Your task to perform on an android device: turn off priority inbox in the gmail app Image 0: 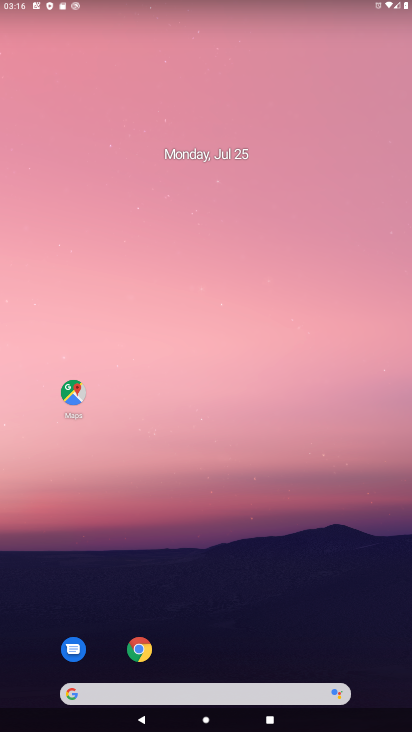
Step 0: drag from (376, 658) to (330, 194)
Your task to perform on an android device: turn off priority inbox in the gmail app Image 1: 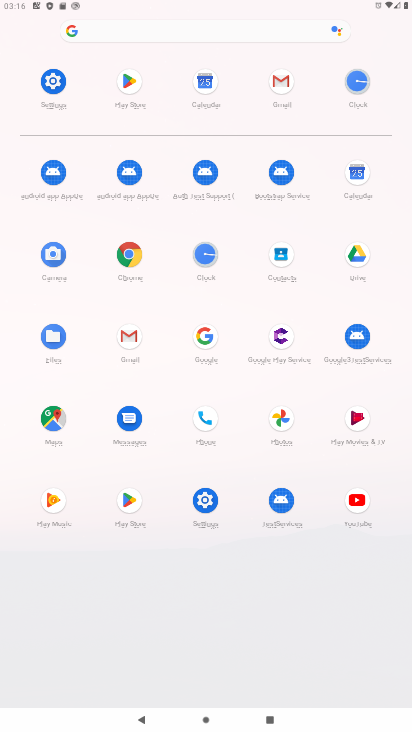
Step 1: click (128, 334)
Your task to perform on an android device: turn off priority inbox in the gmail app Image 2: 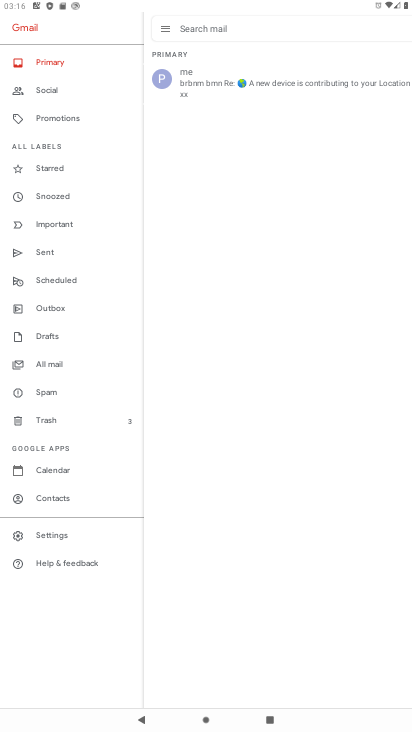
Step 2: click (46, 529)
Your task to perform on an android device: turn off priority inbox in the gmail app Image 3: 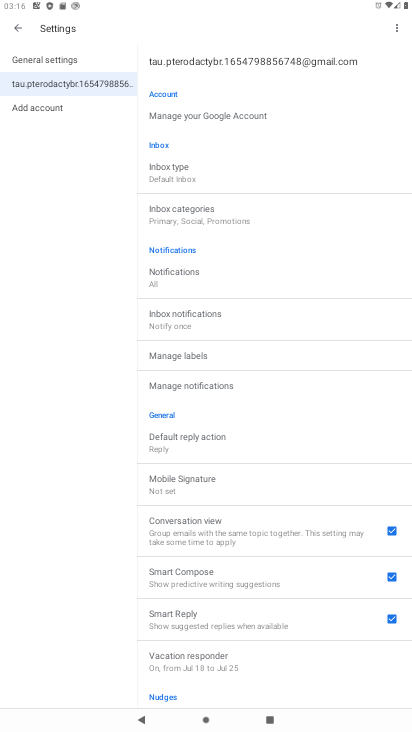
Step 3: click (172, 173)
Your task to perform on an android device: turn off priority inbox in the gmail app Image 4: 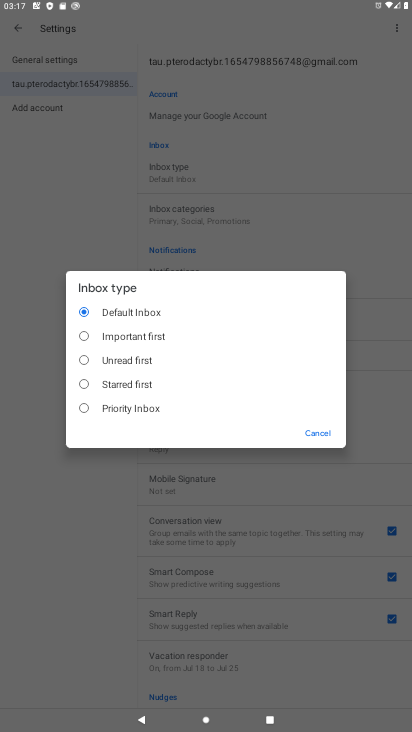
Step 4: task complete